Your task to perform on an android device: Search for Mexican restaurants on Maps Image 0: 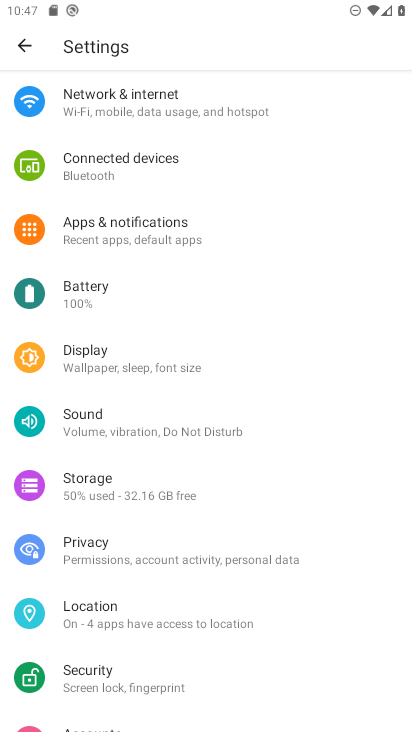
Step 0: press home button
Your task to perform on an android device: Search for Mexican restaurants on Maps Image 1: 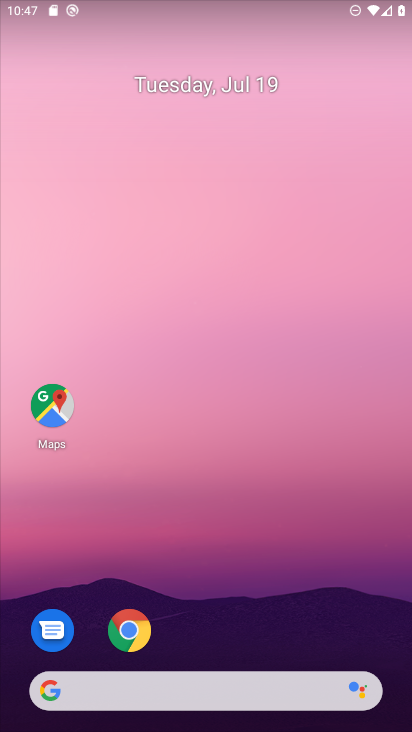
Step 1: click (55, 405)
Your task to perform on an android device: Search for Mexican restaurants on Maps Image 2: 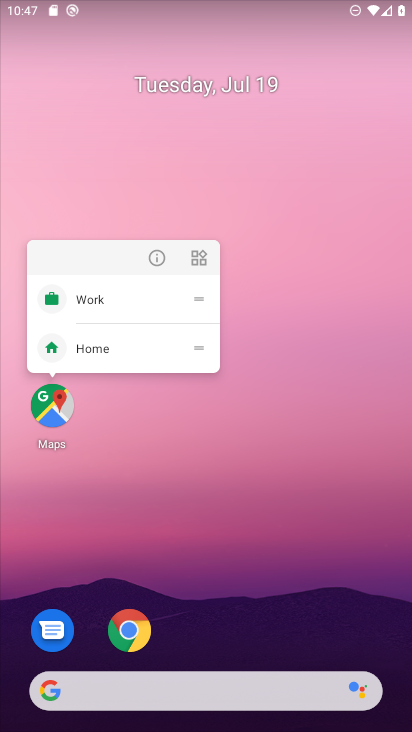
Step 2: click (55, 405)
Your task to perform on an android device: Search for Mexican restaurants on Maps Image 3: 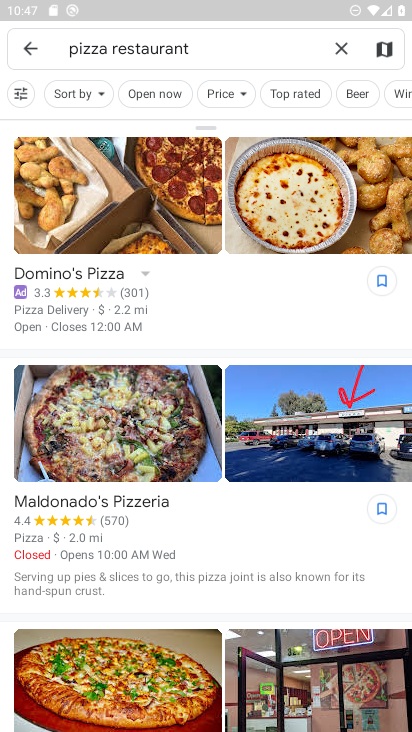
Step 3: click (335, 42)
Your task to perform on an android device: Search for Mexican restaurants on Maps Image 4: 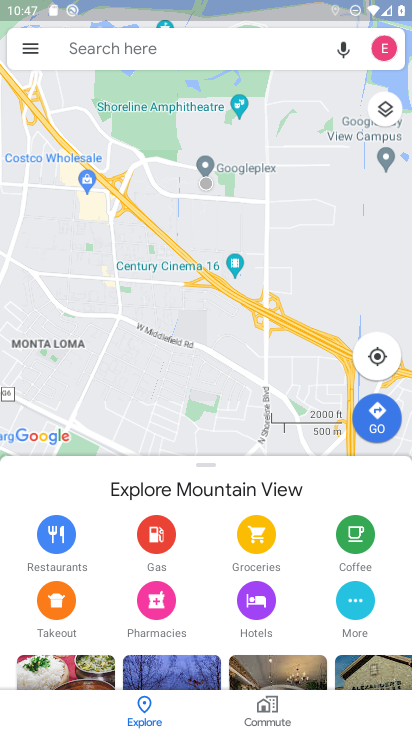
Step 4: click (230, 36)
Your task to perform on an android device: Search for Mexican restaurants on Maps Image 5: 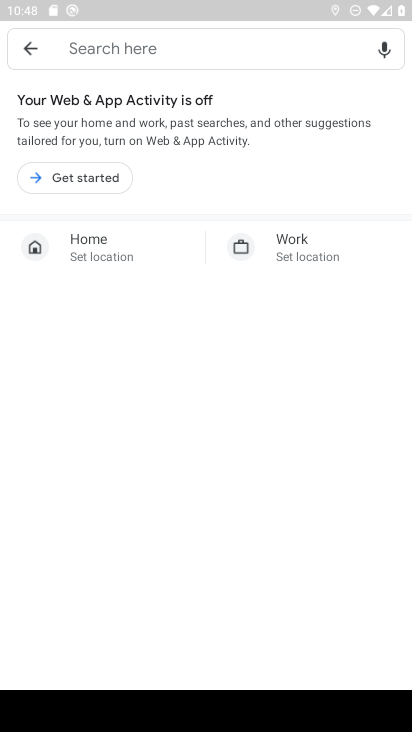
Step 5: type "Mexican restaurants"
Your task to perform on an android device: Search for Mexican restaurants on Maps Image 6: 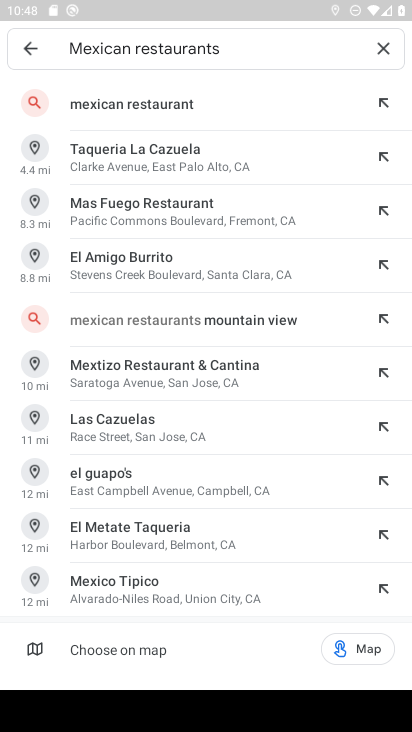
Step 6: click (129, 98)
Your task to perform on an android device: Search for Mexican restaurants on Maps Image 7: 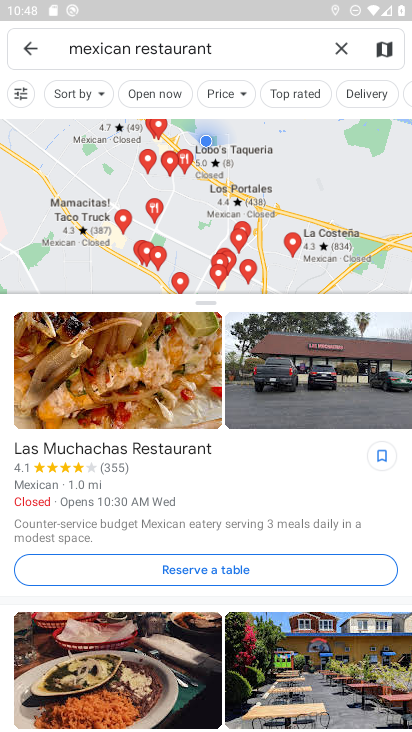
Step 7: task complete